Your task to perform on an android device: Open Amazon Image 0: 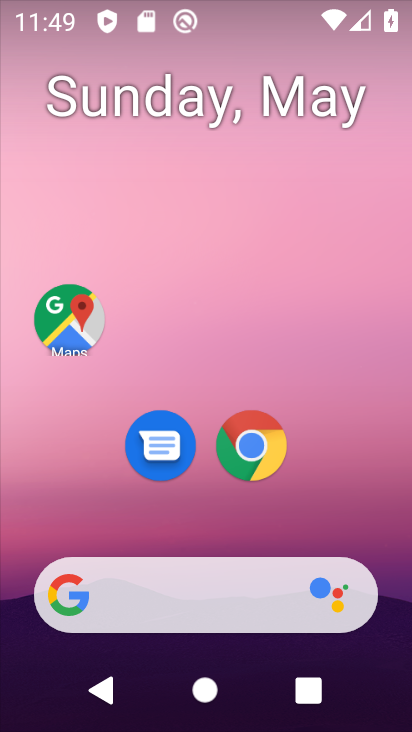
Step 0: drag from (335, 471) to (322, 59)
Your task to perform on an android device: Open Amazon Image 1: 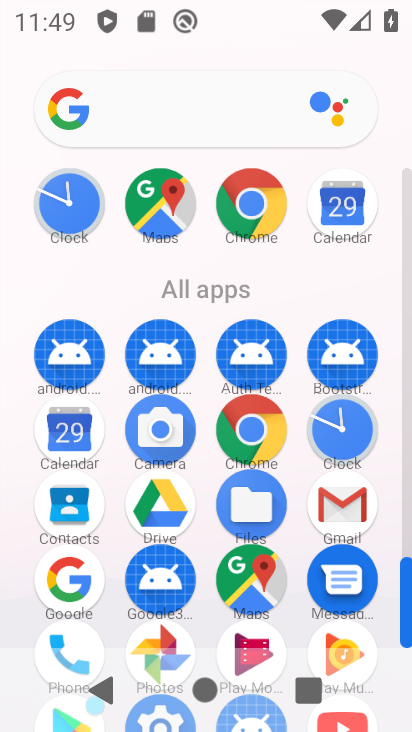
Step 1: drag from (306, 311) to (307, 15)
Your task to perform on an android device: Open Amazon Image 2: 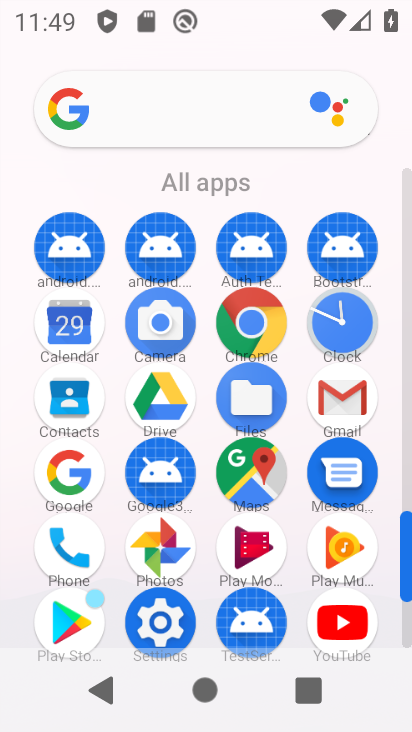
Step 2: click (237, 311)
Your task to perform on an android device: Open Amazon Image 3: 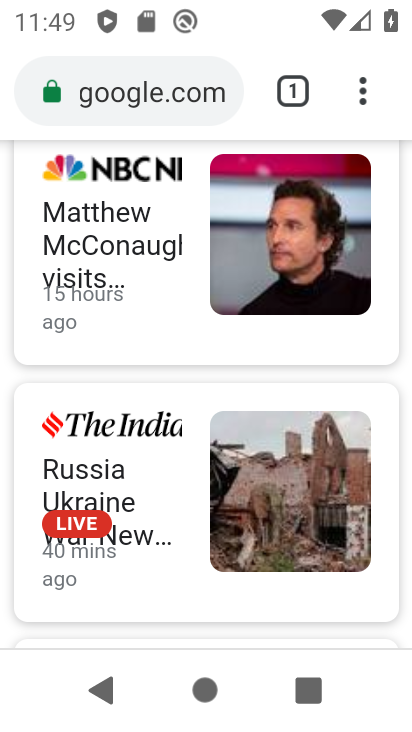
Step 3: drag from (369, 82) to (87, 186)
Your task to perform on an android device: Open Amazon Image 4: 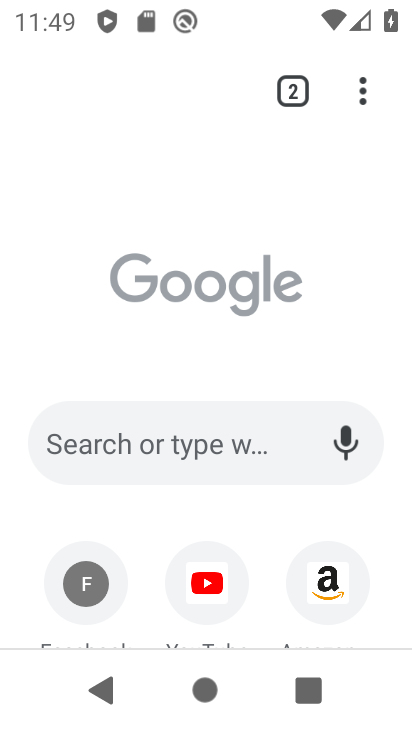
Step 4: click (328, 577)
Your task to perform on an android device: Open Amazon Image 5: 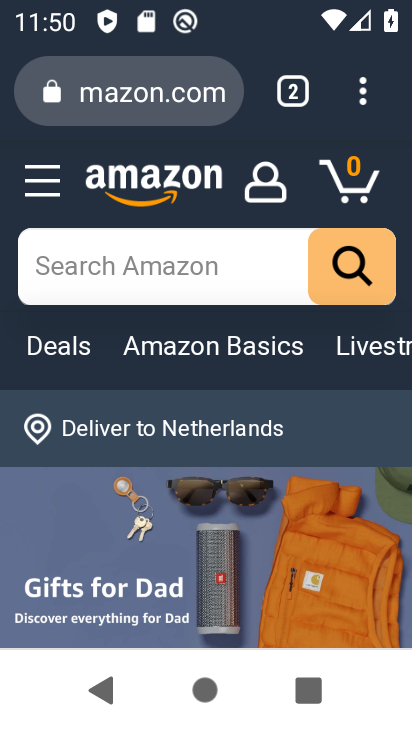
Step 5: task complete